Your task to perform on an android device: Open calendar and show me the third week of next month Image 0: 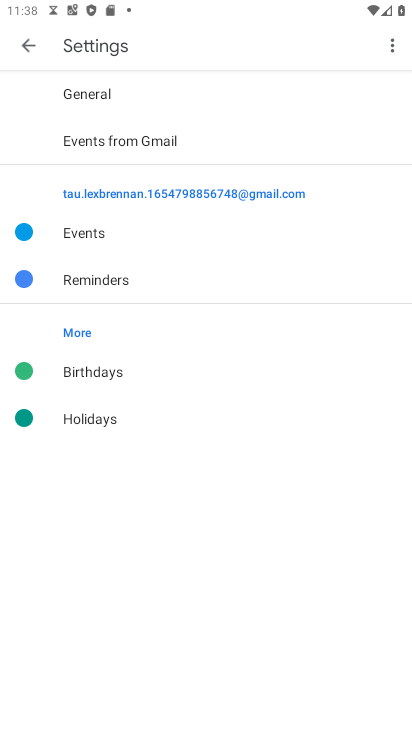
Step 0: press home button
Your task to perform on an android device: Open calendar and show me the third week of next month Image 1: 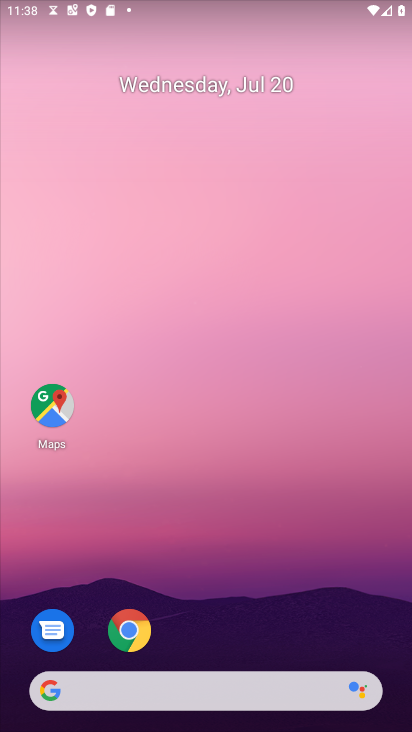
Step 1: drag from (13, 695) to (347, 3)
Your task to perform on an android device: Open calendar and show me the third week of next month Image 2: 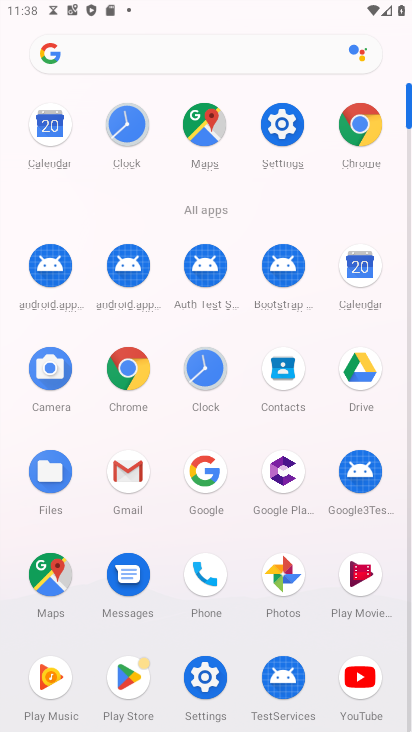
Step 2: click (370, 284)
Your task to perform on an android device: Open calendar and show me the third week of next month Image 3: 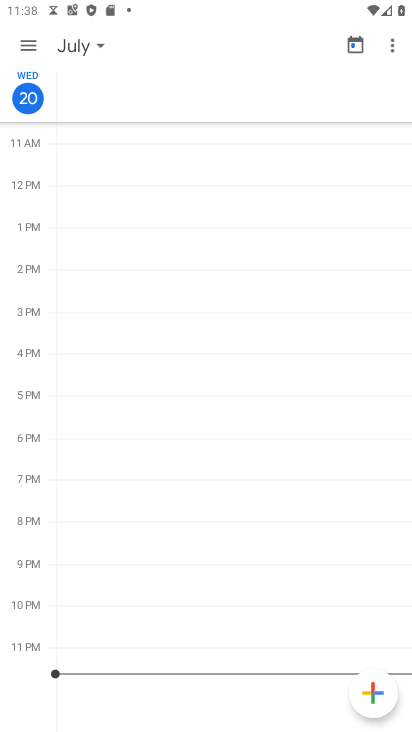
Step 3: click (99, 41)
Your task to perform on an android device: Open calendar and show me the third week of next month Image 4: 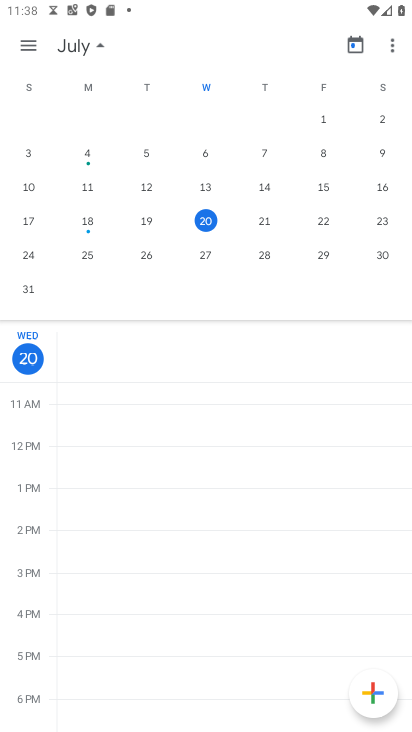
Step 4: drag from (357, 152) to (20, 231)
Your task to perform on an android device: Open calendar and show me the third week of next month Image 5: 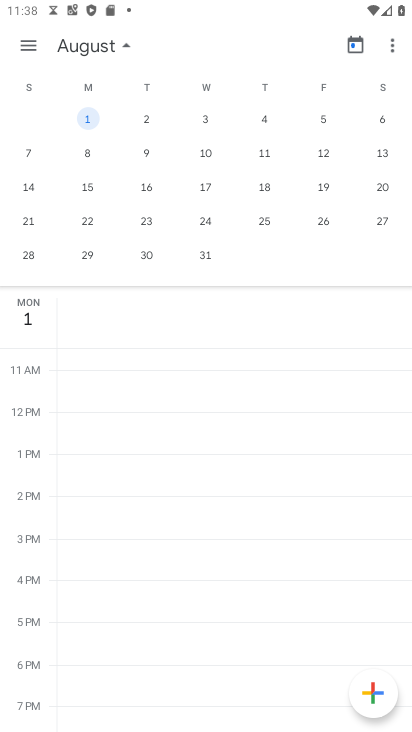
Step 5: click (85, 181)
Your task to perform on an android device: Open calendar and show me the third week of next month Image 6: 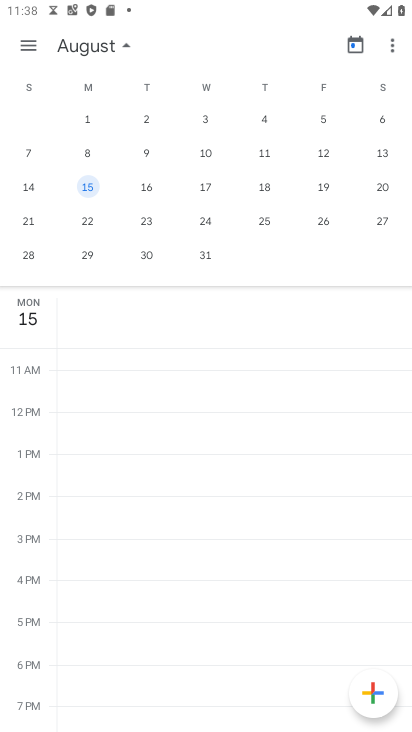
Step 6: task complete